Your task to perform on an android device: see creations saved in the google photos Image 0: 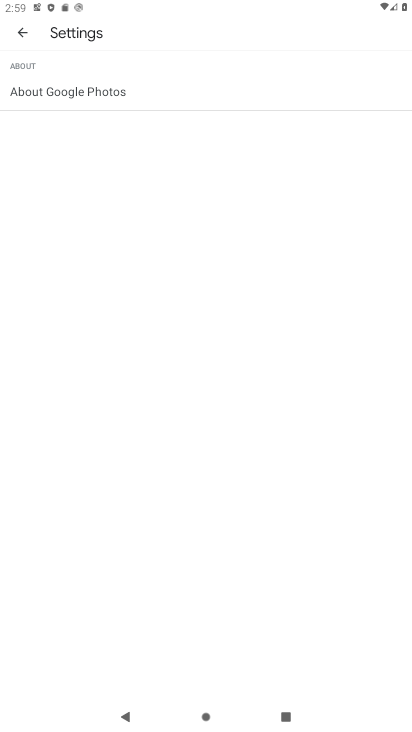
Step 0: press home button
Your task to perform on an android device: see creations saved in the google photos Image 1: 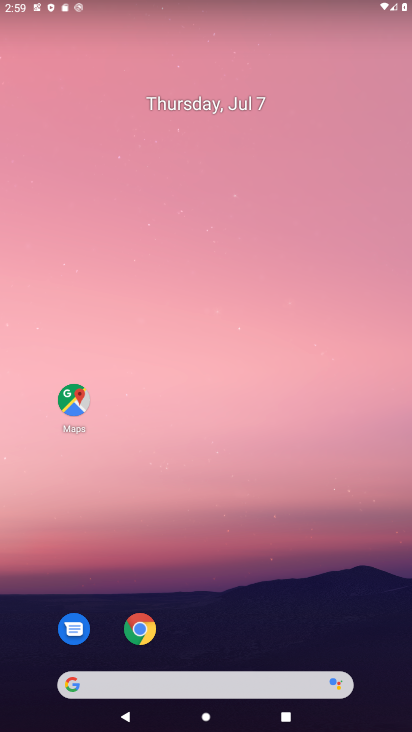
Step 1: drag from (207, 625) to (218, 38)
Your task to perform on an android device: see creations saved in the google photos Image 2: 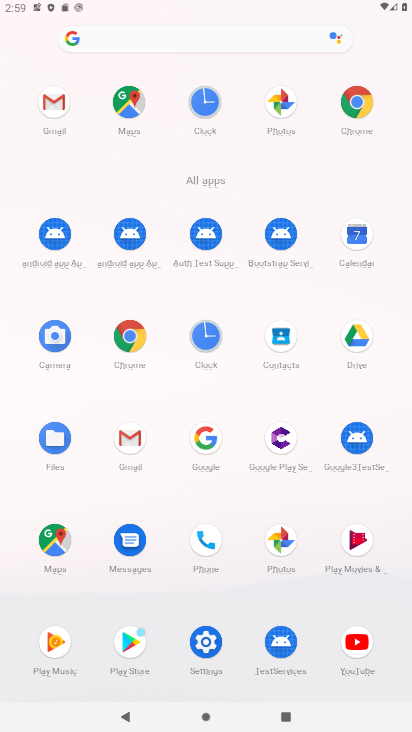
Step 2: click (287, 113)
Your task to perform on an android device: see creations saved in the google photos Image 3: 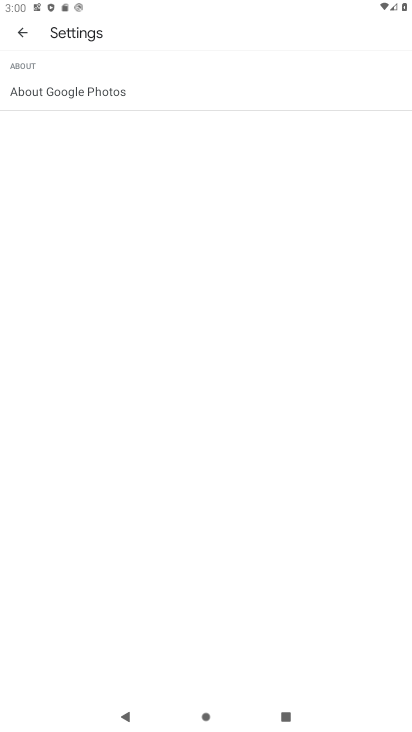
Step 3: click (29, 31)
Your task to perform on an android device: see creations saved in the google photos Image 4: 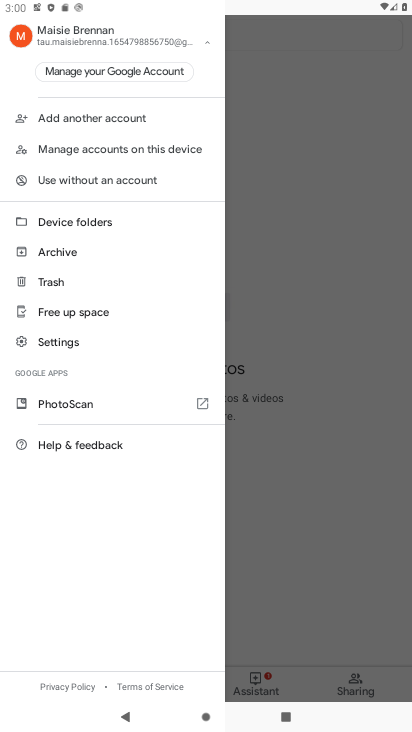
Step 4: task complete